Your task to perform on an android device: Open the phone app and click the voicemail tab. Image 0: 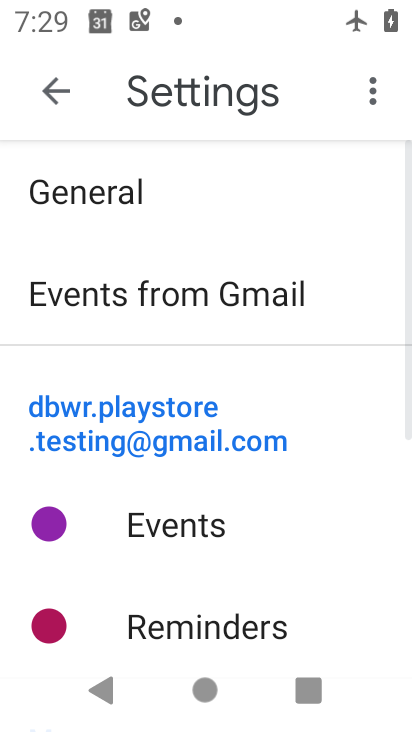
Step 0: press home button
Your task to perform on an android device: Open the phone app and click the voicemail tab. Image 1: 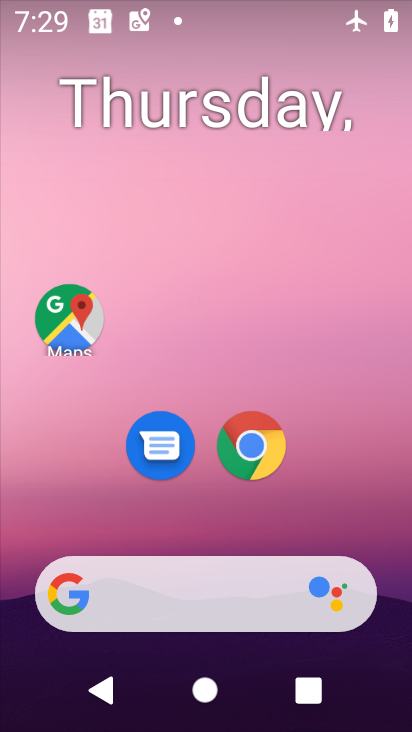
Step 1: drag from (395, 624) to (334, 69)
Your task to perform on an android device: Open the phone app and click the voicemail tab. Image 2: 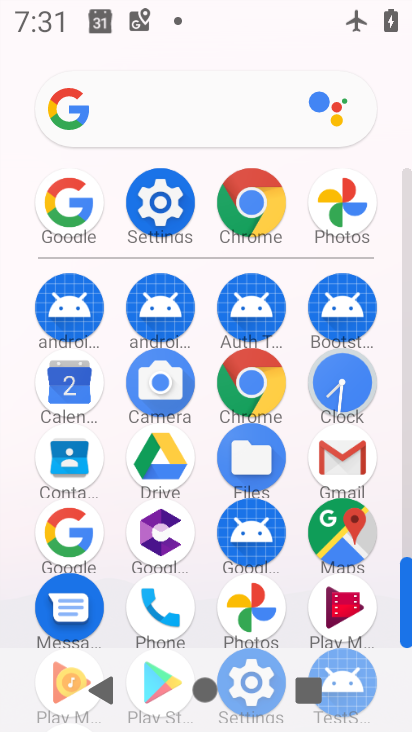
Step 2: click (185, 588)
Your task to perform on an android device: Open the phone app and click the voicemail tab. Image 3: 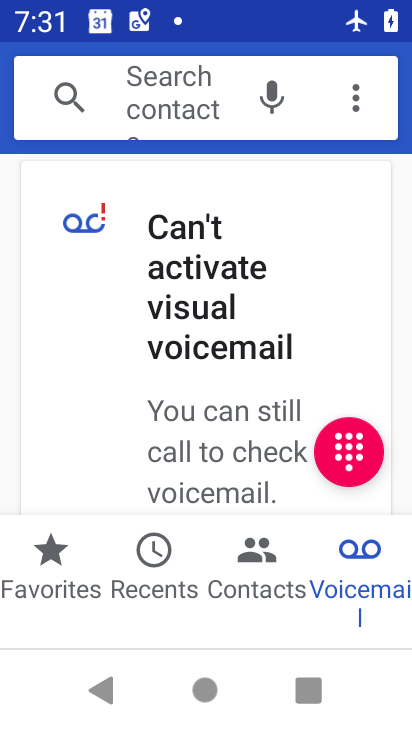
Step 3: task complete